Your task to perform on an android device: change notification settings in the gmail app Image 0: 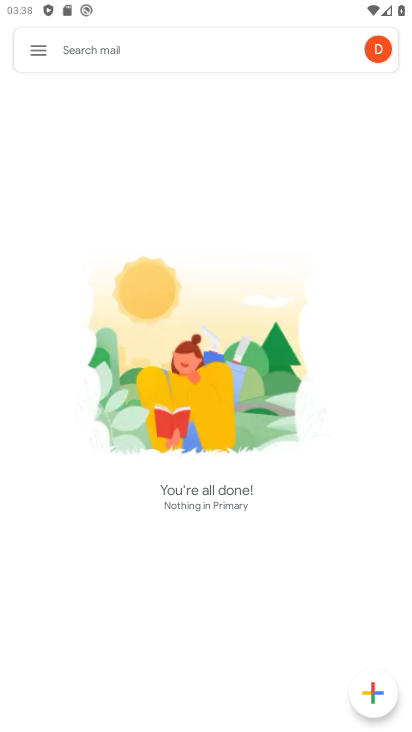
Step 0: press home button
Your task to perform on an android device: change notification settings in the gmail app Image 1: 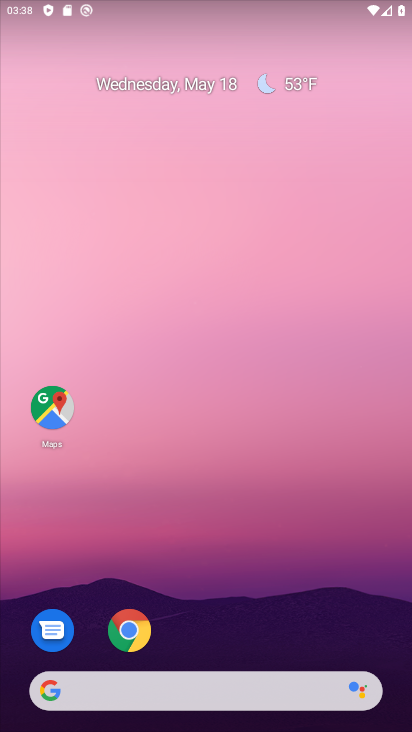
Step 1: drag from (230, 701) to (232, 134)
Your task to perform on an android device: change notification settings in the gmail app Image 2: 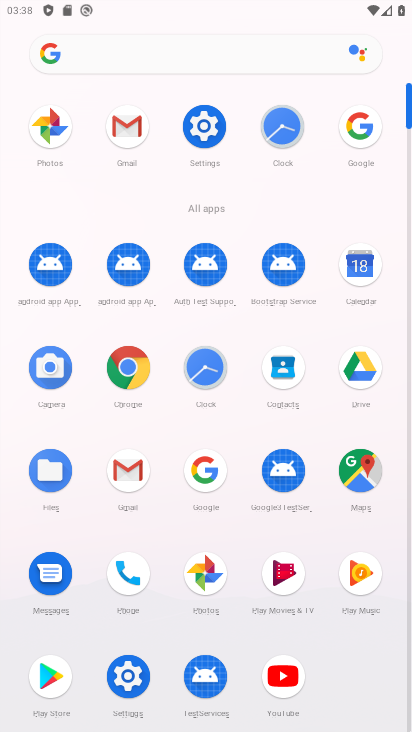
Step 2: click (136, 473)
Your task to perform on an android device: change notification settings in the gmail app Image 3: 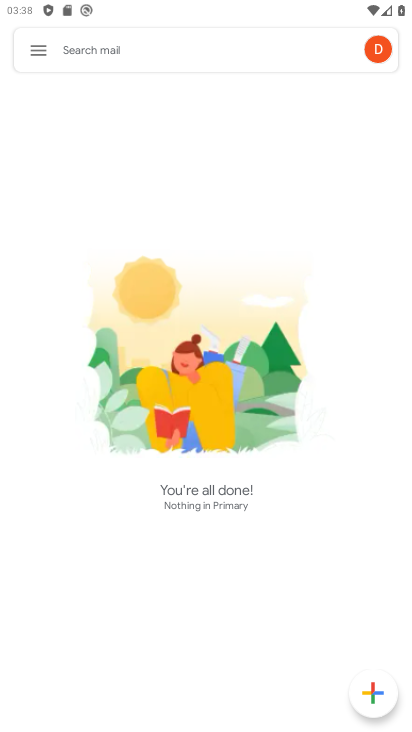
Step 3: click (37, 50)
Your task to perform on an android device: change notification settings in the gmail app Image 4: 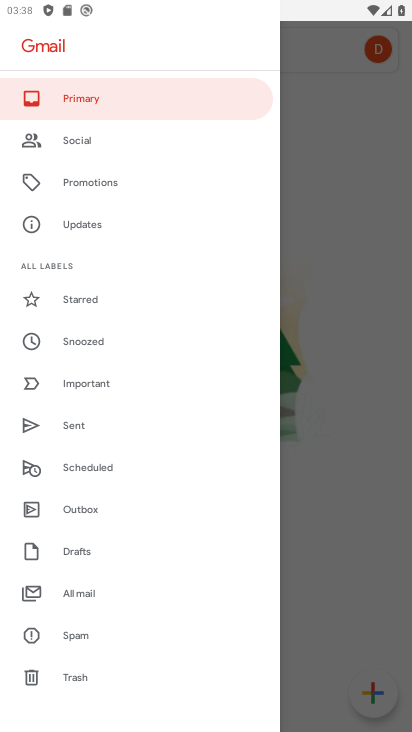
Step 4: drag from (111, 644) to (118, 271)
Your task to perform on an android device: change notification settings in the gmail app Image 5: 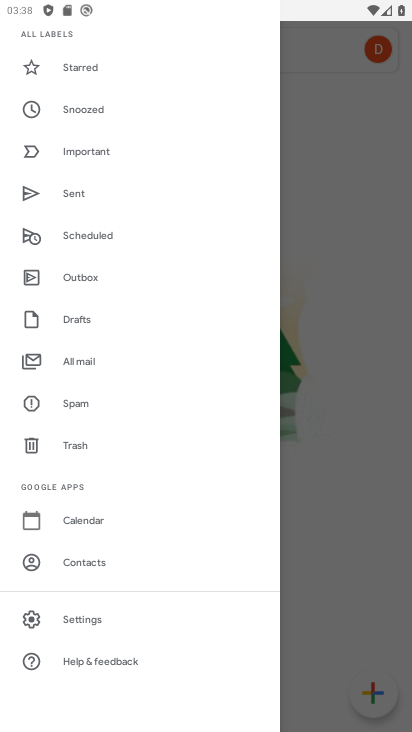
Step 5: click (86, 616)
Your task to perform on an android device: change notification settings in the gmail app Image 6: 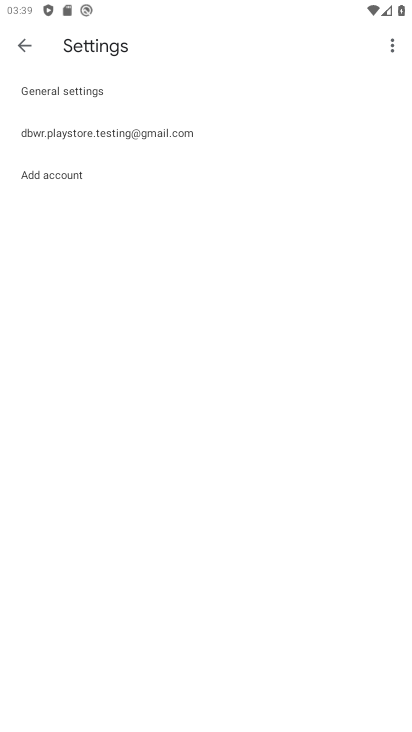
Step 6: click (83, 129)
Your task to perform on an android device: change notification settings in the gmail app Image 7: 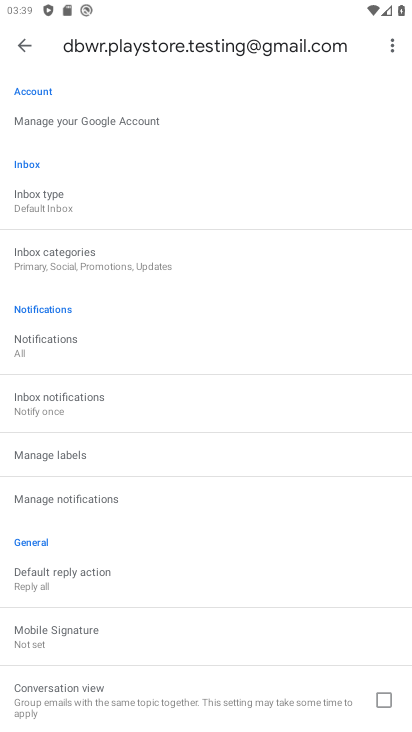
Step 7: click (56, 351)
Your task to perform on an android device: change notification settings in the gmail app Image 8: 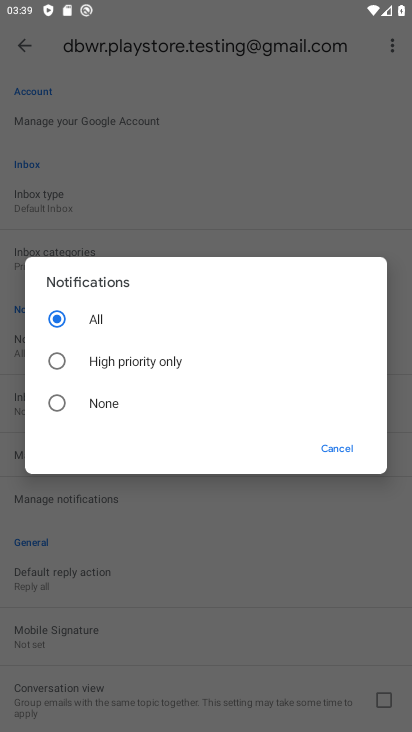
Step 8: click (57, 402)
Your task to perform on an android device: change notification settings in the gmail app Image 9: 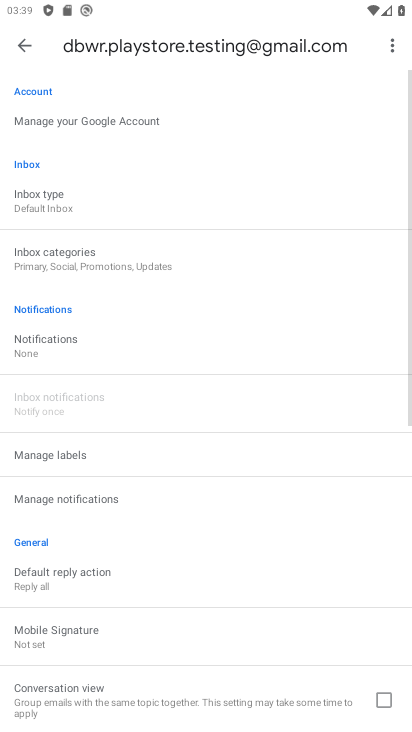
Step 9: task complete